Your task to perform on an android device: turn off location Image 0: 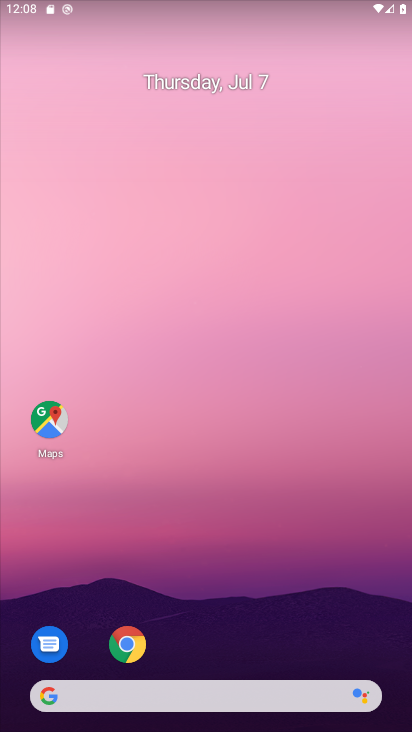
Step 0: drag from (292, 157) to (292, 8)
Your task to perform on an android device: turn off location Image 1: 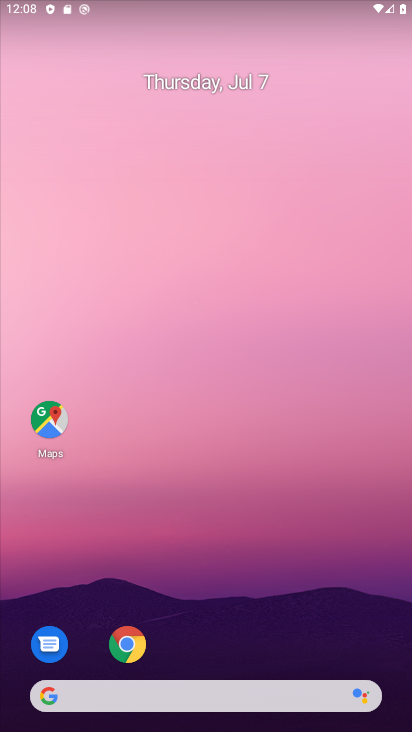
Step 1: drag from (207, 682) to (278, 62)
Your task to perform on an android device: turn off location Image 2: 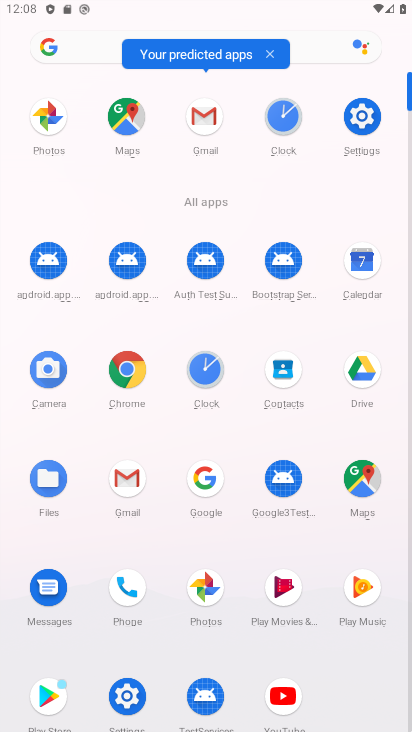
Step 2: click (111, 698)
Your task to perform on an android device: turn off location Image 3: 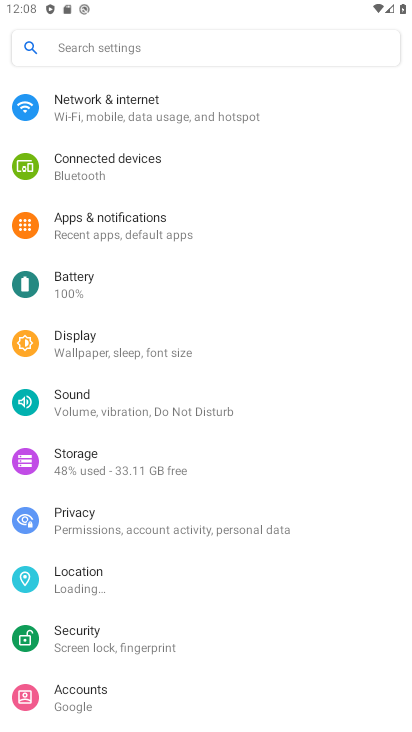
Step 3: drag from (75, 611) to (155, 307)
Your task to perform on an android device: turn off location Image 4: 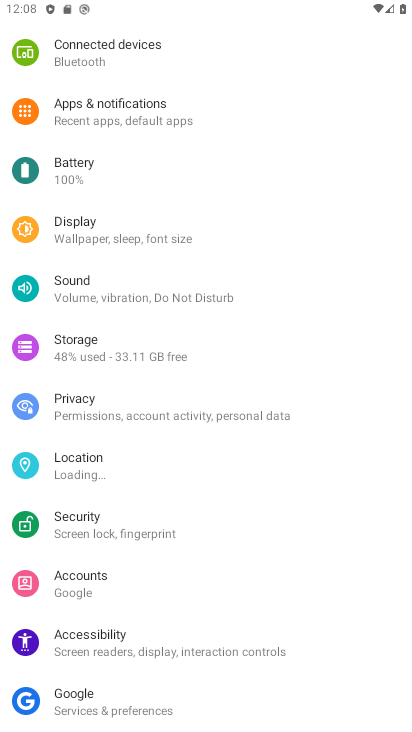
Step 4: click (114, 454)
Your task to perform on an android device: turn off location Image 5: 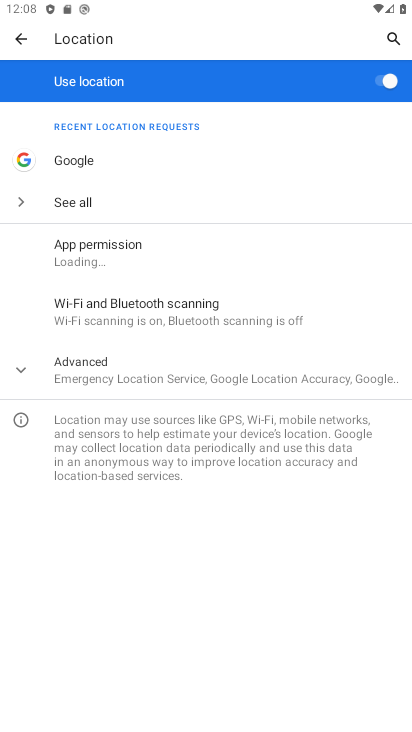
Step 5: click (373, 79)
Your task to perform on an android device: turn off location Image 6: 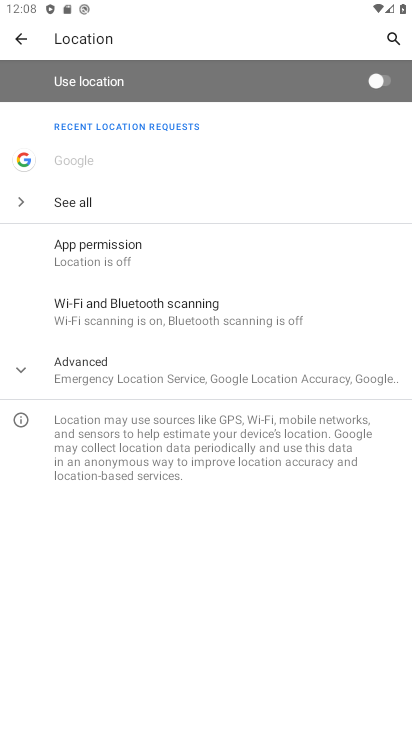
Step 6: task complete